Your task to perform on an android device: turn on improve location accuracy Image 0: 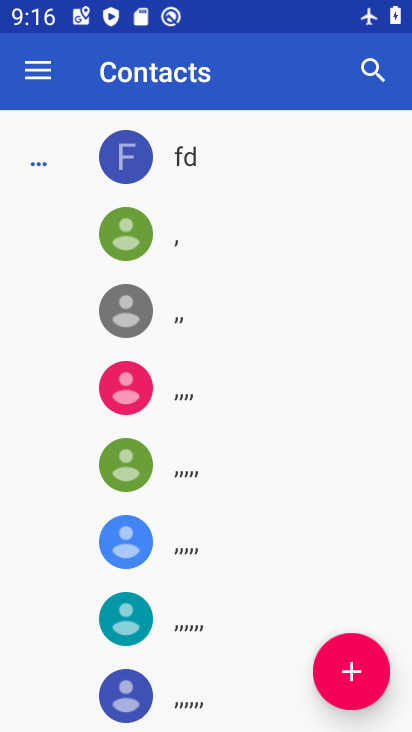
Step 0: press home button
Your task to perform on an android device: turn on improve location accuracy Image 1: 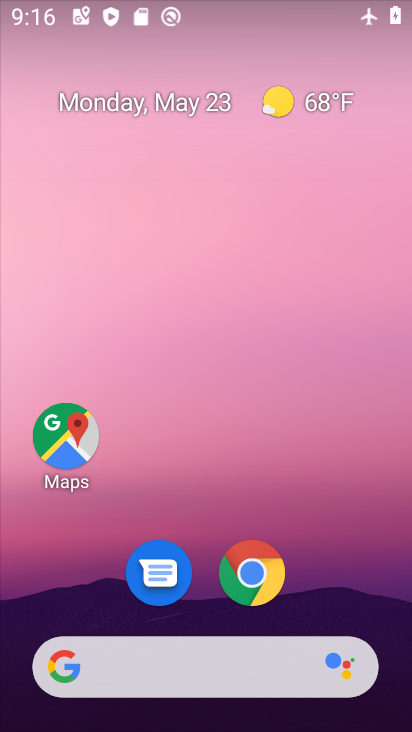
Step 1: drag from (272, 667) to (295, 68)
Your task to perform on an android device: turn on improve location accuracy Image 2: 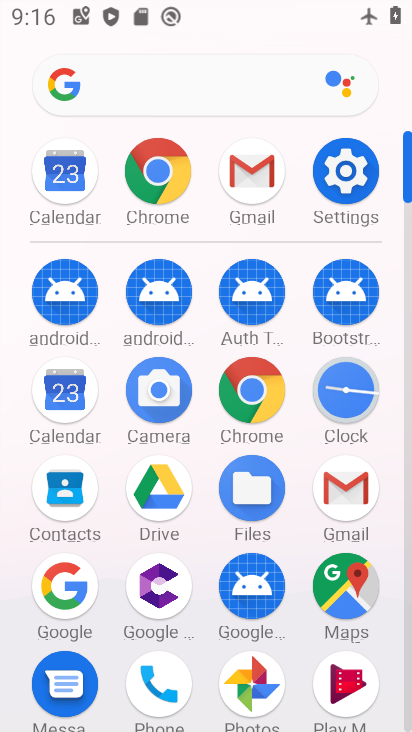
Step 2: click (343, 173)
Your task to perform on an android device: turn on improve location accuracy Image 3: 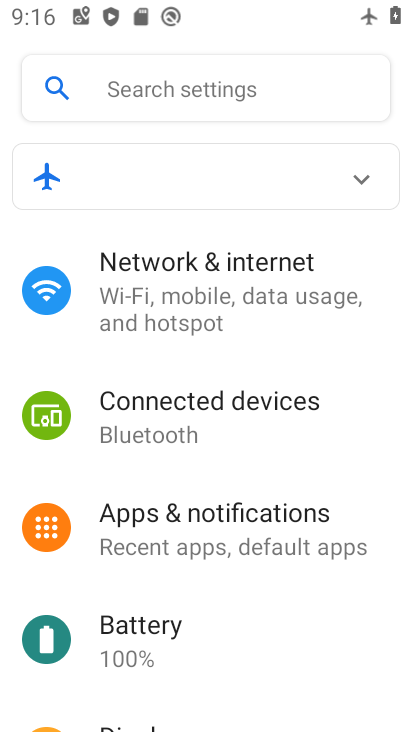
Step 3: drag from (296, 641) to (299, 187)
Your task to perform on an android device: turn on improve location accuracy Image 4: 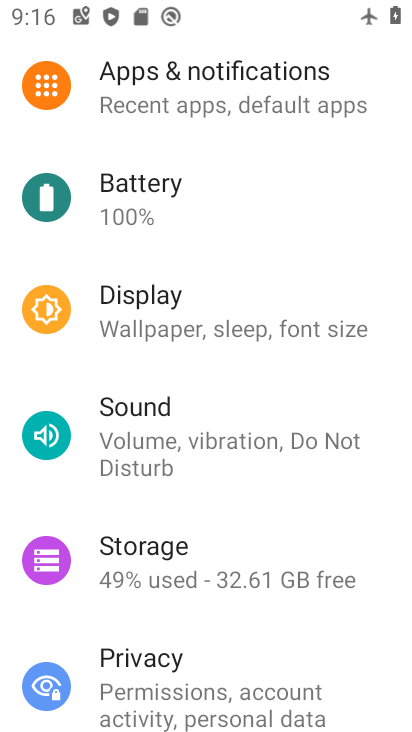
Step 4: drag from (184, 628) to (286, 199)
Your task to perform on an android device: turn on improve location accuracy Image 5: 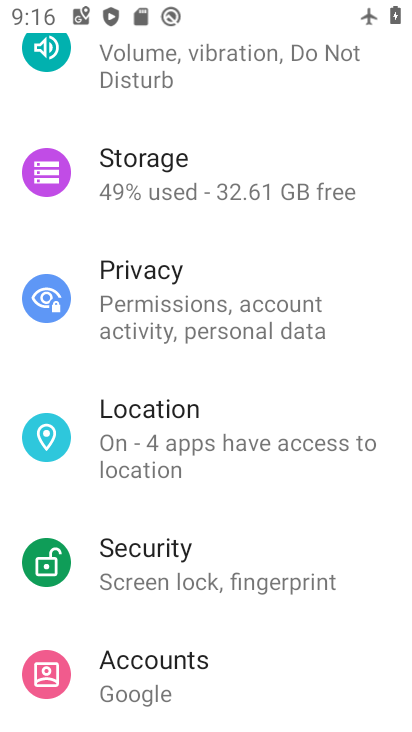
Step 5: click (231, 447)
Your task to perform on an android device: turn on improve location accuracy Image 6: 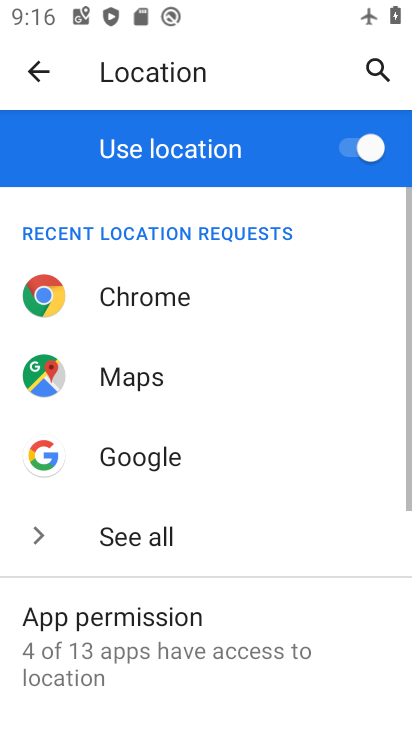
Step 6: drag from (241, 631) to (281, 291)
Your task to perform on an android device: turn on improve location accuracy Image 7: 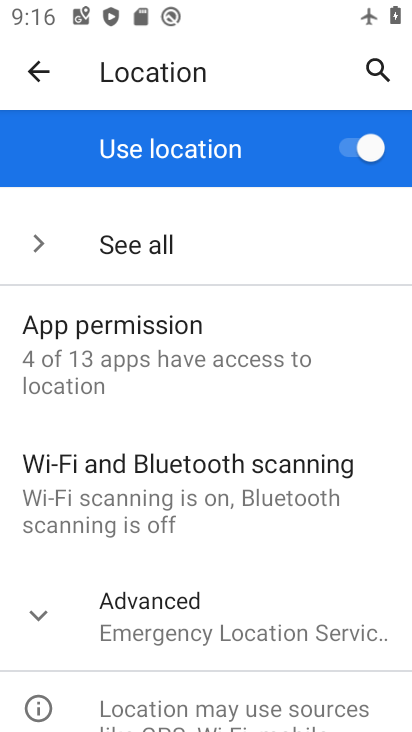
Step 7: click (212, 614)
Your task to perform on an android device: turn on improve location accuracy Image 8: 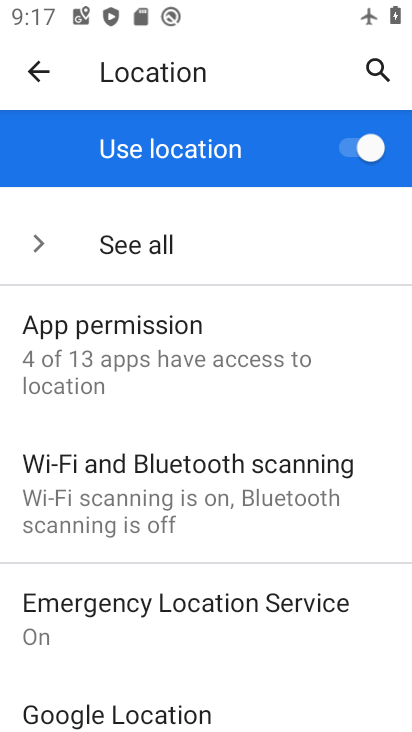
Step 8: drag from (201, 643) to (293, 219)
Your task to perform on an android device: turn on improve location accuracy Image 9: 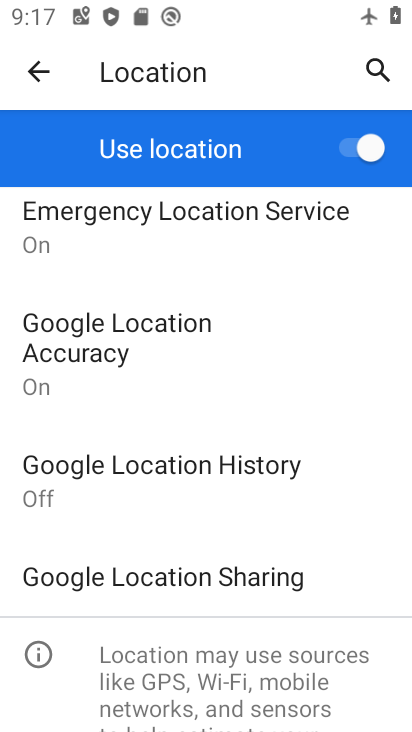
Step 9: click (187, 353)
Your task to perform on an android device: turn on improve location accuracy Image 10: 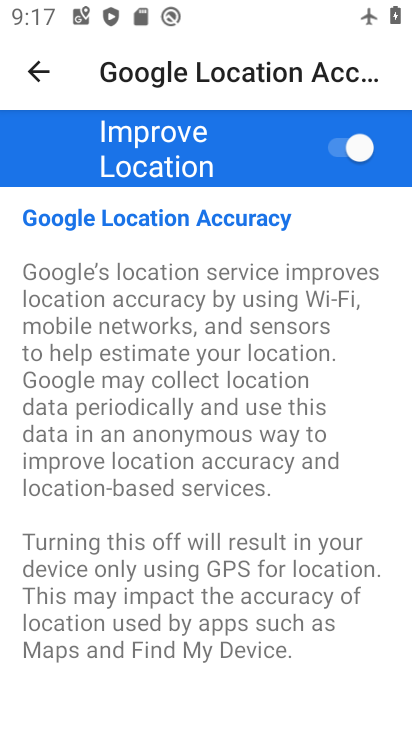
Step 10: task complete